Your task to perform on an android device: turn off javascript in the chrome app Image 0: 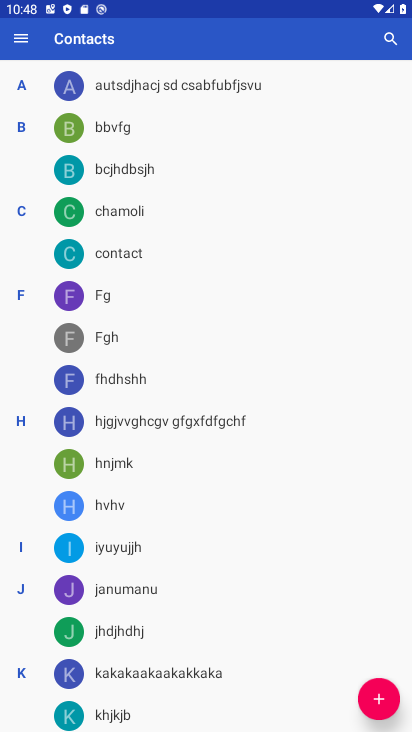
Step 0: press home button
Your task to perform on an android device: turn off javascript in the chrome app Image 1: 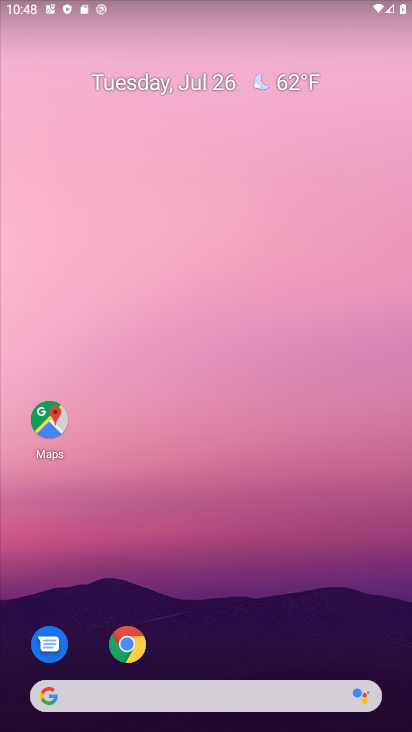
Step 1: click (134, 644)
Your task to perform on an android device: turn off javascript in the chrome app Image 2: 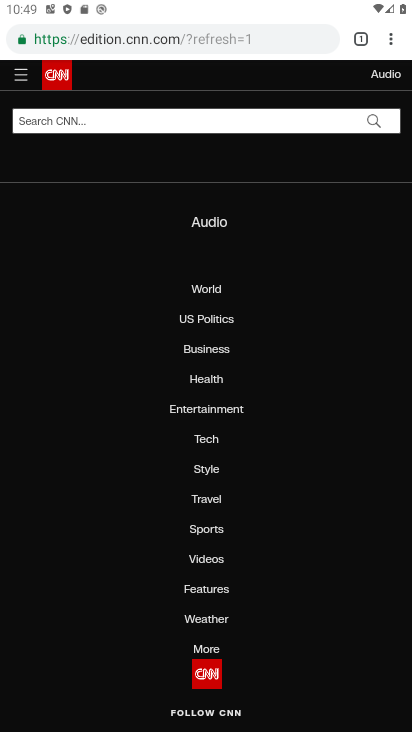
Step 2: click (397, 37)
Your task to perform on an android device: turn off javascript in the chrome app Image 3: 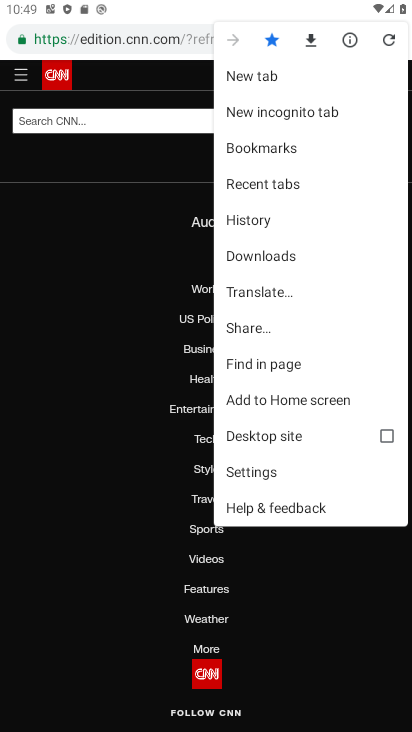
Step 3: click (275, 466)
Your task to perform on an android device: turn off javascript in the chrome app Image 4: 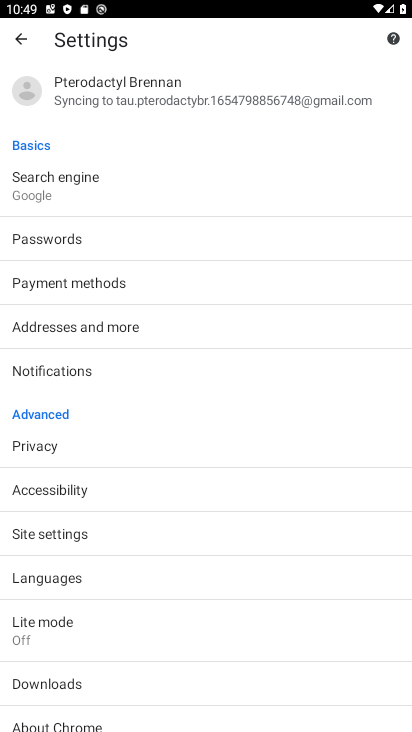
Step 4: click (71, 526)
Your task to perform on an android device: turn off javascript in the chrome app Image 5: 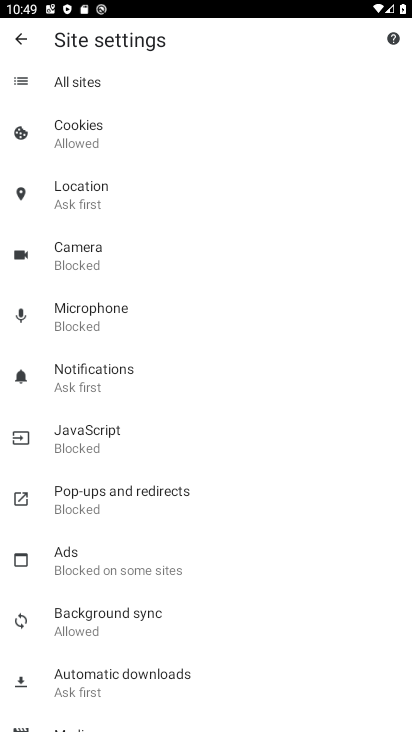
Step 5: click (106, 443)
Your task to perform on an android device: turn off javascript in the chrome app Image 6: 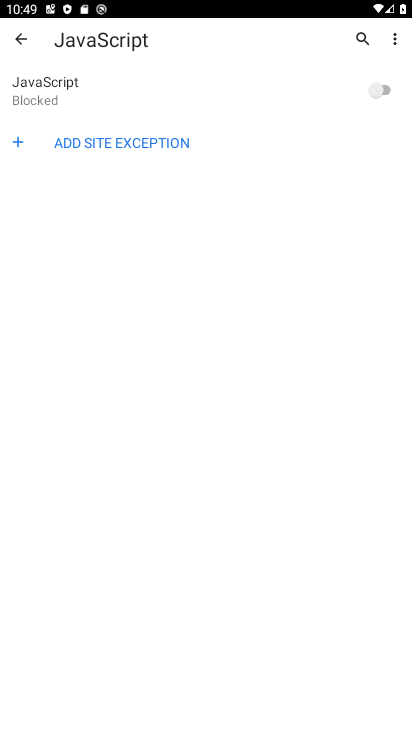
Step 6: task complete